Your task to perform on an android device: search for starred emails in the gmail app Image 0: 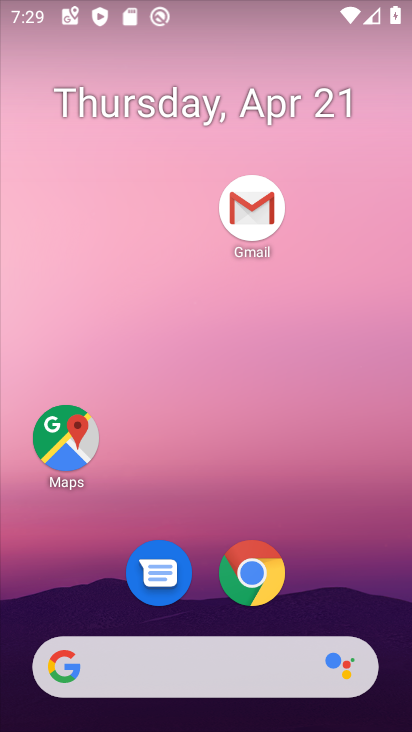
Step 0: drag from (358, 565) to (324, 125)
Your task to perform on an android device: search for starred emails in the gmail app Image 1: 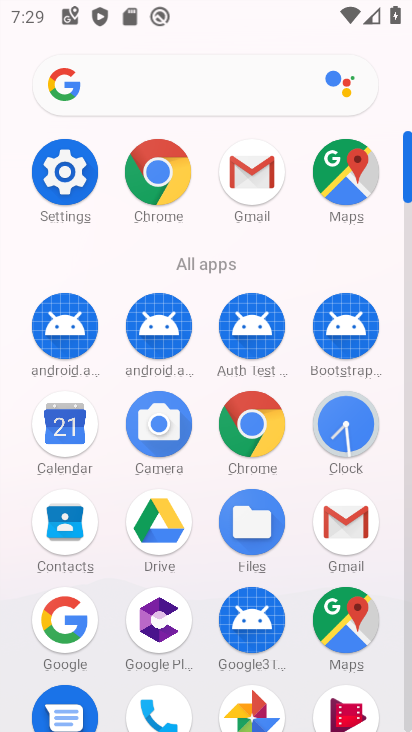
Step 1: click (263, 185)
Your task to perform on an android device: search for starred emails in the gmail app Image 2: 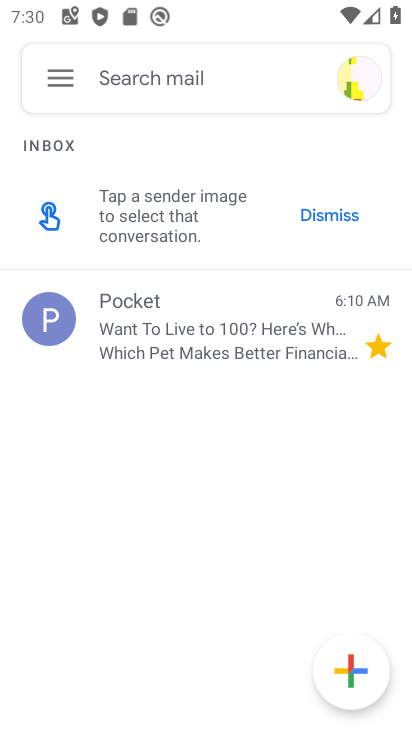
Step 2: click (237, 325)
Your task to perform on an android device: search for starred emails in the gmail app Image 3: 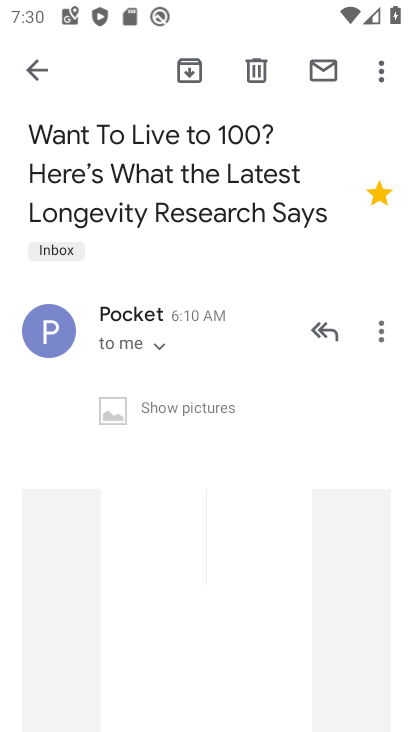
Step 3: task complete